Your task to perform on an android device: Empty the shopping cart on ebay.com. Add "sony triple a" to the cart on ebay.com, then select checkout. Image 0: 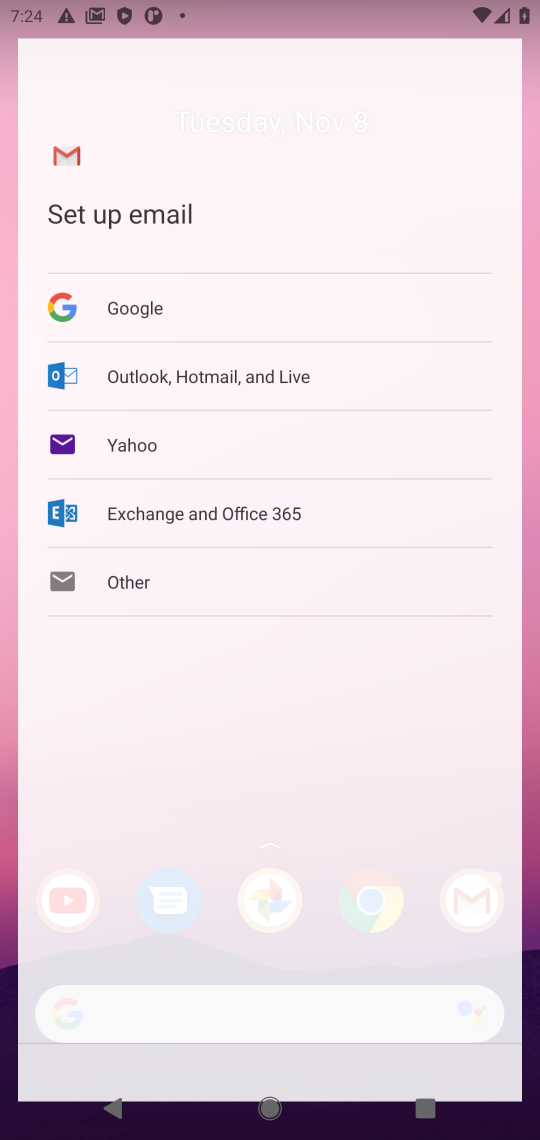
Step 0: click (360, 911)
Your task to perform on an android device: Empty the shopping cart on ebay.com. Add "sony triple a" to the cart on ebay.com, then select checkout. Image 1: 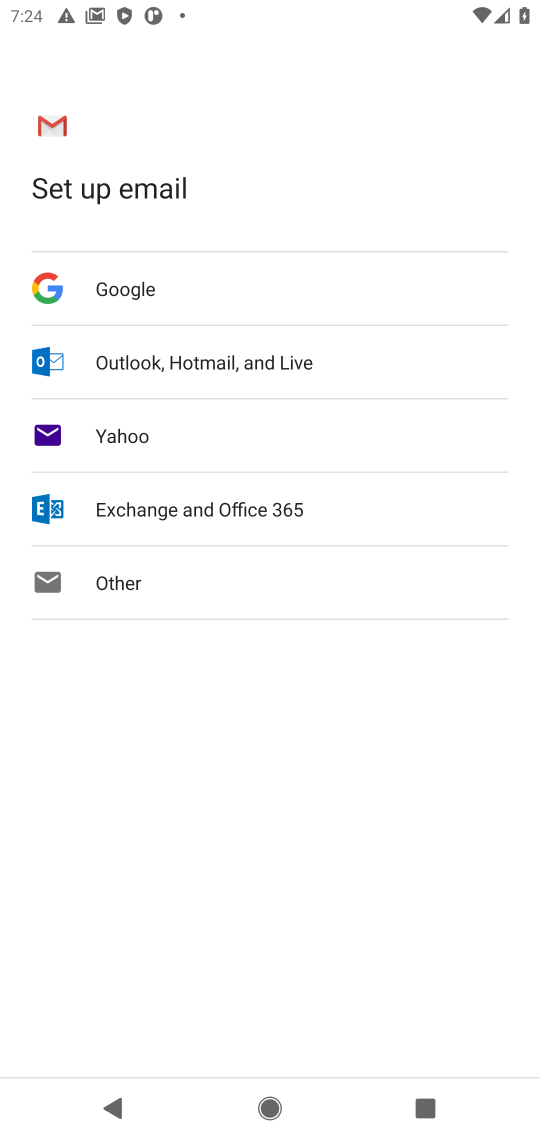
Step 1: press home button
Your task to perform on an android device: Empty the shopping cart on ebay.com. Add "sony triple a" to the cart on ebay.com, then select checkout. Image 2: 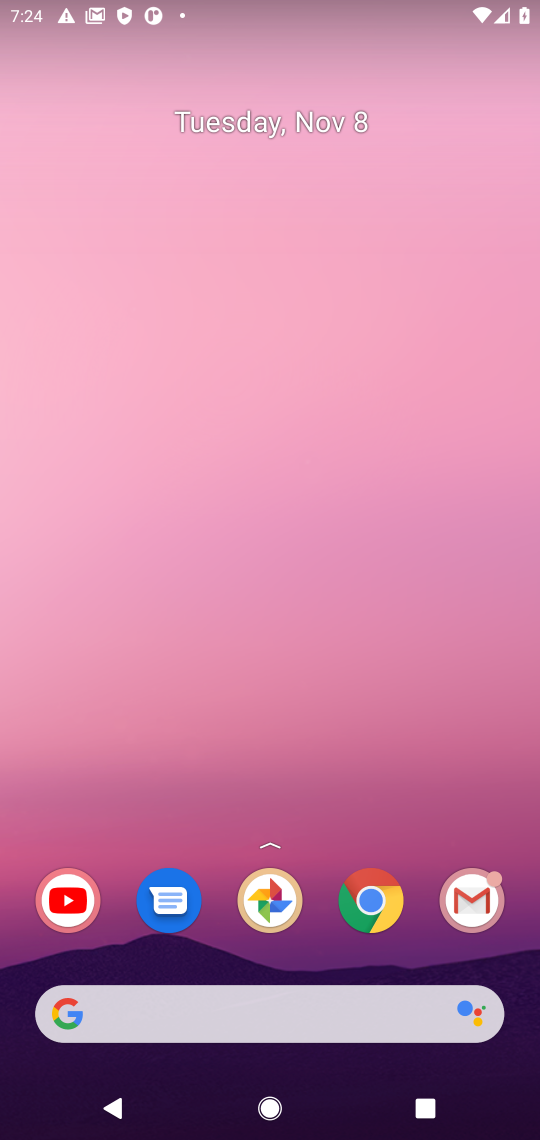
Step 2: click (358, 902)
Your task to perform on an android device: Empty the shopping cart on ebay.com. Add "sony triple a" to the cart on ebay.com, then select checkout. Image 3: 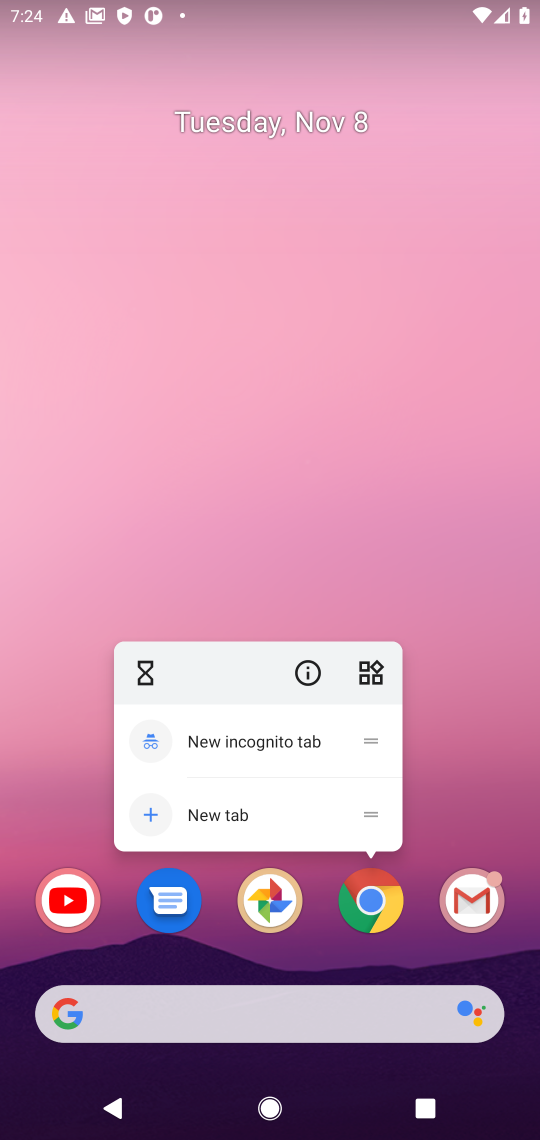
Step 3: click (356, 901)
Your task to perform on an android device: Empty the shopping cart on ebay.com. Add "sony triple a" to the cart on ebay.com, then select checkout. Image 4: 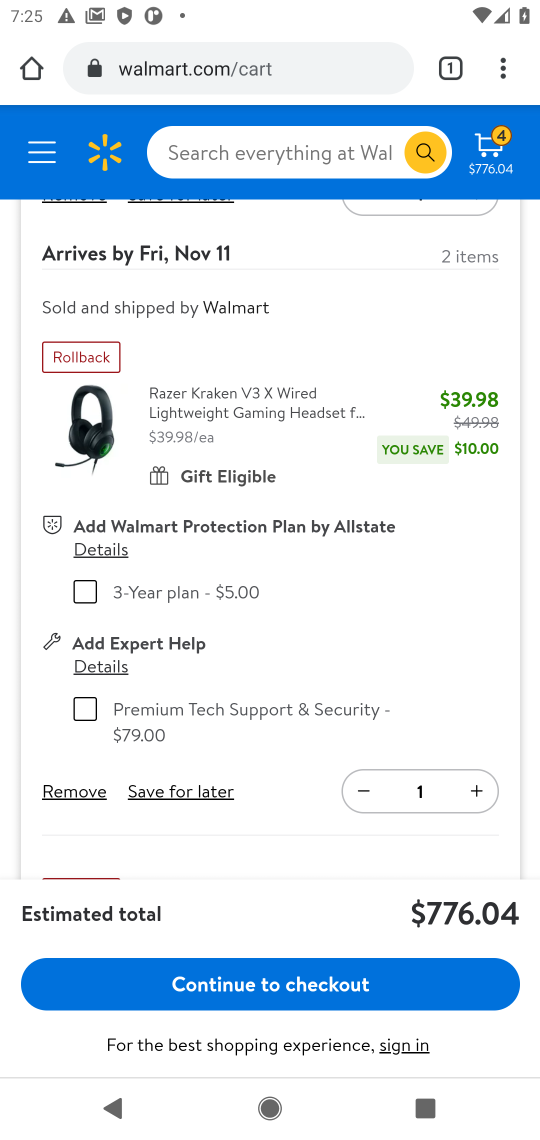
Step 4: click (202, 63)
Your task to perform on an android device: Empty the shopping cart on ebay.com. Add "sony triple a" to the cart on ebay.com, then select checkout. Image 5: 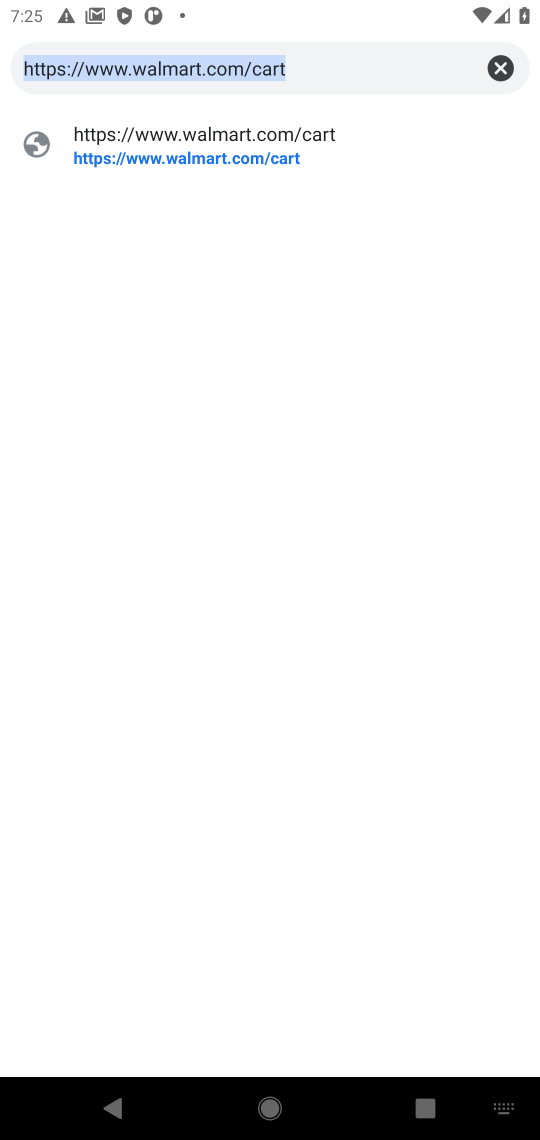
Step 5: click (502, 68)
Your task to perform on an android device: Empty the shopping cart on ebay.com. Add "sony triple a" to the cart on ebay.com, then select checkout. Image 6: 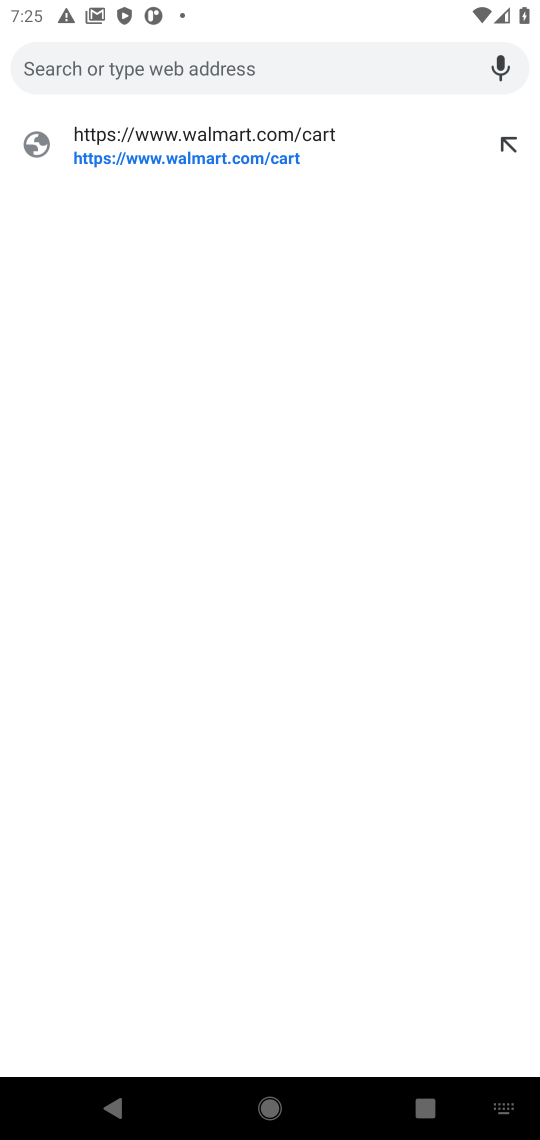
Step 6: type "ebay"
Your task to perform on an android device: Empty the shopping cart on ebay.com. Add "sony triple a" to the cart on ebay.com, then select checkout. Image 7: 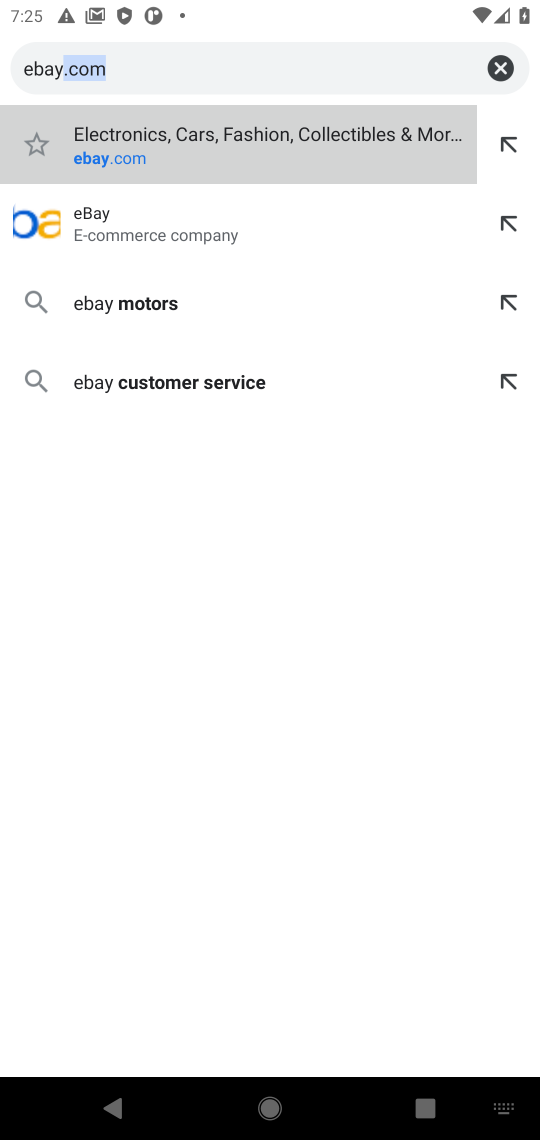
Step 7: click (96, 217)
Your task to perform on an android device: Empty the shopping cart on ebay.com. Add "sony triple a" to the cart on ebay.com, then select checkout. Image 8: 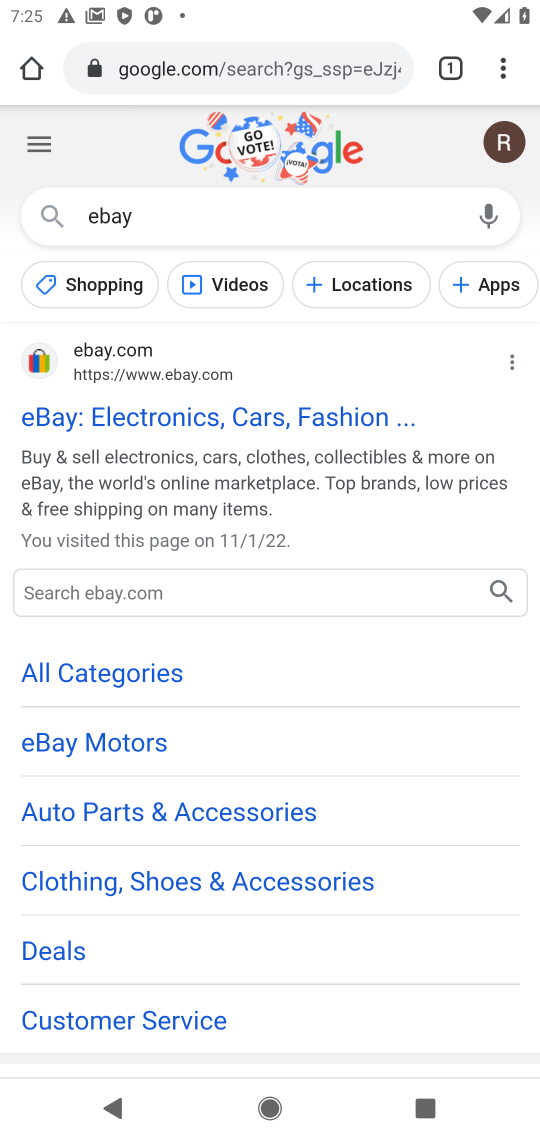
Step 8: click (139, 426)
Your task to perform on an android device: Empty the shopping cart on ebay.com. Add "sony triple a" to the cart on ebay.com, then select checkout. Image 9: 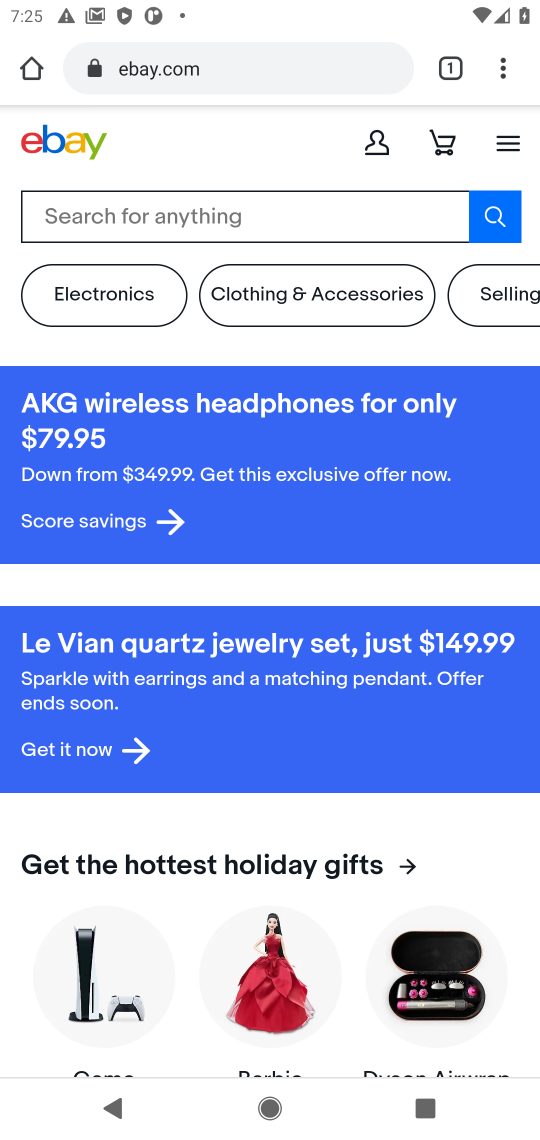
Step 9: click (237, 216)
Your task to perform on an android device: Empty the shopping cart on ebay.com. Add "sony triple a" to the cart on ebay.com, then select checkout. Image 10: 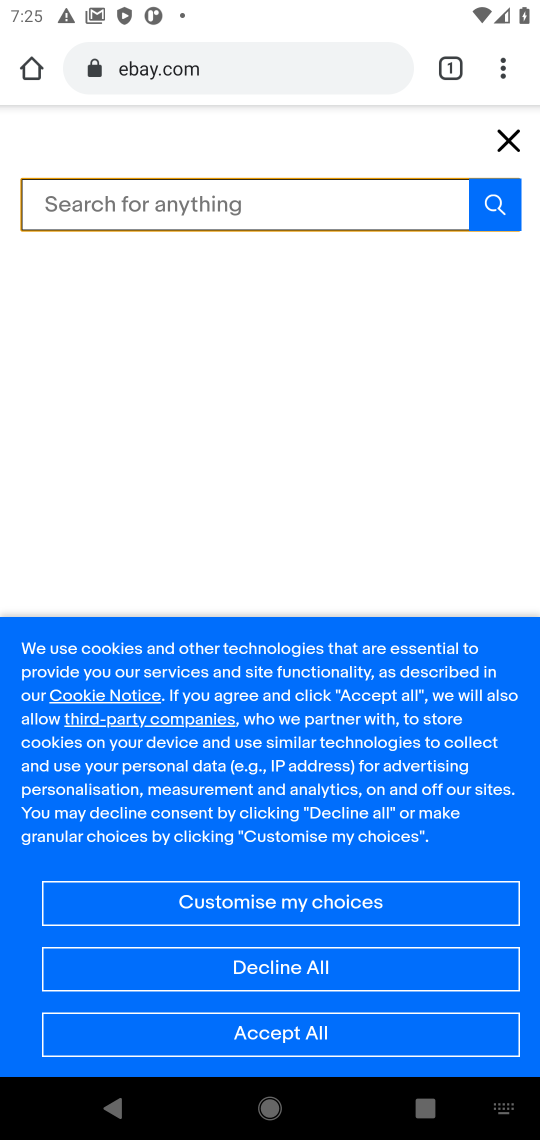
Step 10: type "sony triple"
Your task to perform on an android device: Empty the shopping cart on ebay.com. Add "sony triple a" to the cart on ebay.com, then select checkout. Image 11: 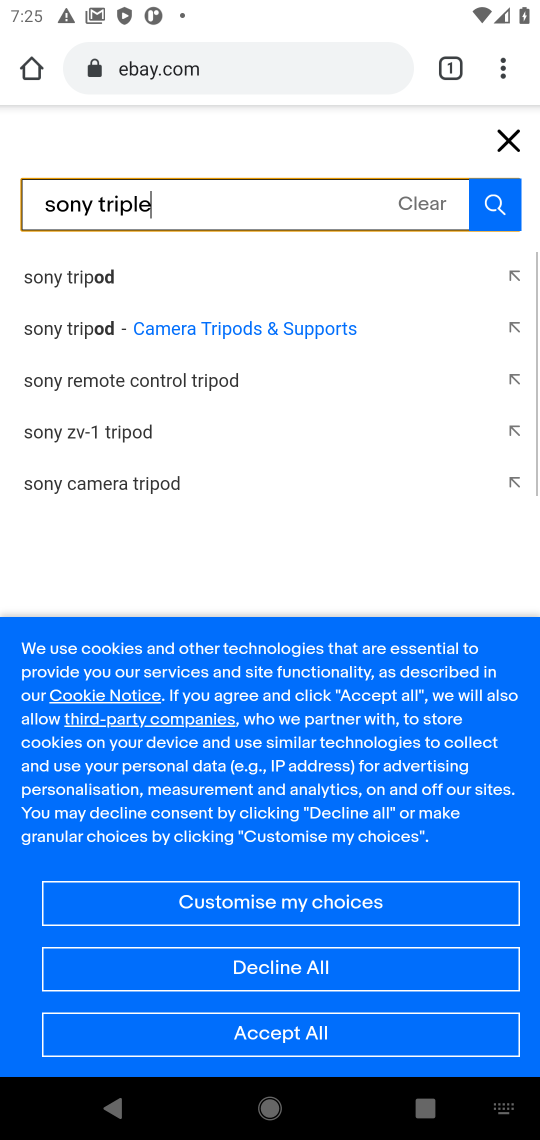
Step 11: type ""
Your task to perform on an android device: Empty the shopping cart on ebay.com. Add "sony triple a" to the cart on ebay.com, then select checkout. Image 12: 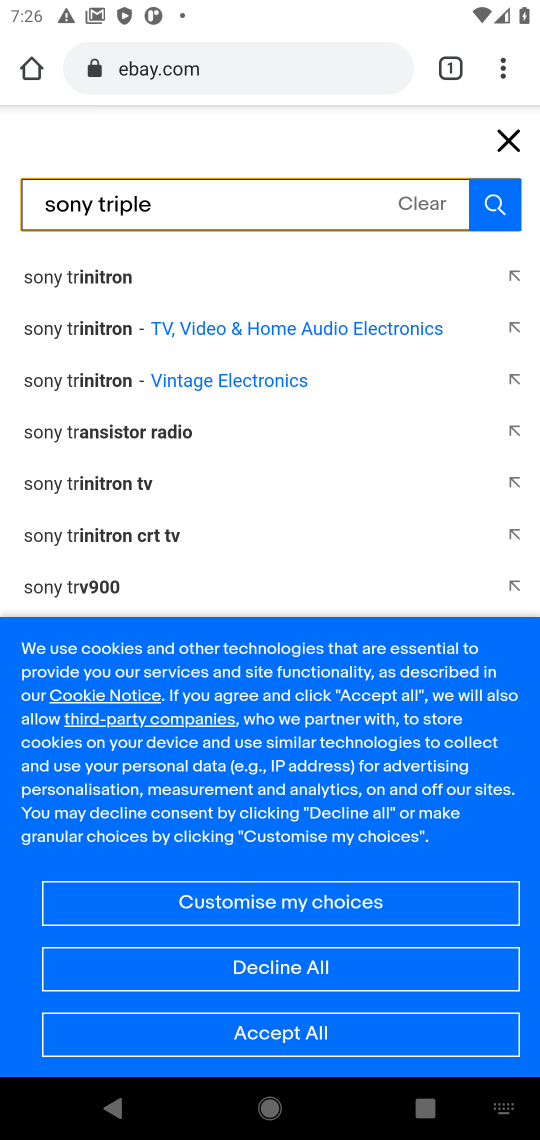
Step 12: click (58, 275)
Your task to perform on an android device: Empty the shopping cart on ebay.com. Add "sony triple a" to the cart on ebay.com, then select checkout. Image 13: 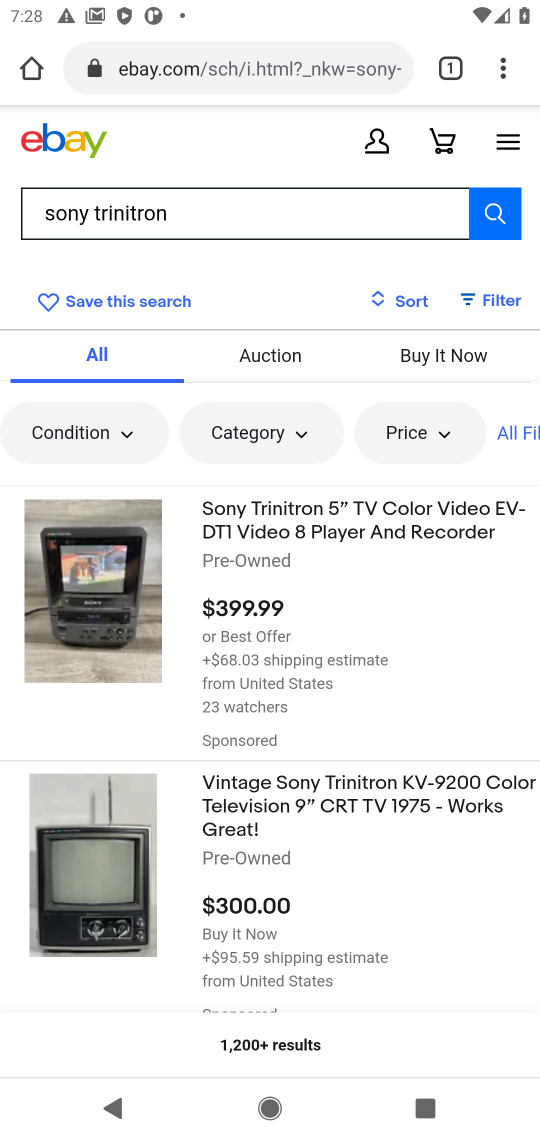
Step 13: click (243, 526)
Your task to perform on an android device: Empty the shopping cart on ebay.com. Add "sony triple a" to the cart on ebay.com, then select checkout. Image 14: 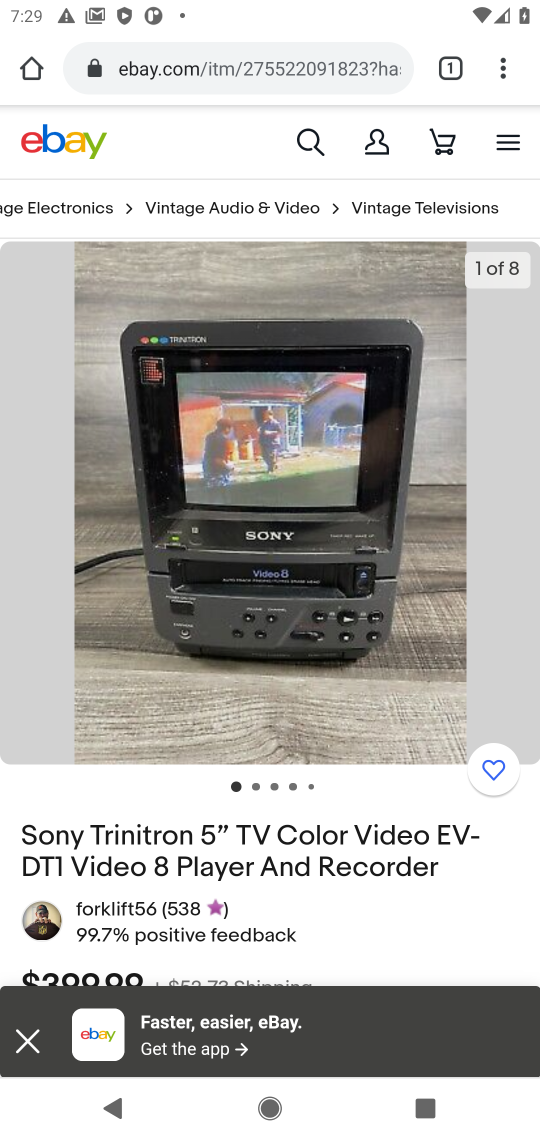
Step 14: click (28, 1038)
Your task to perform on an android device: Empty the shopping cart on ebay.com. Add "sony triple a" to the cart on ebay.com, then select checkout. Image 15: 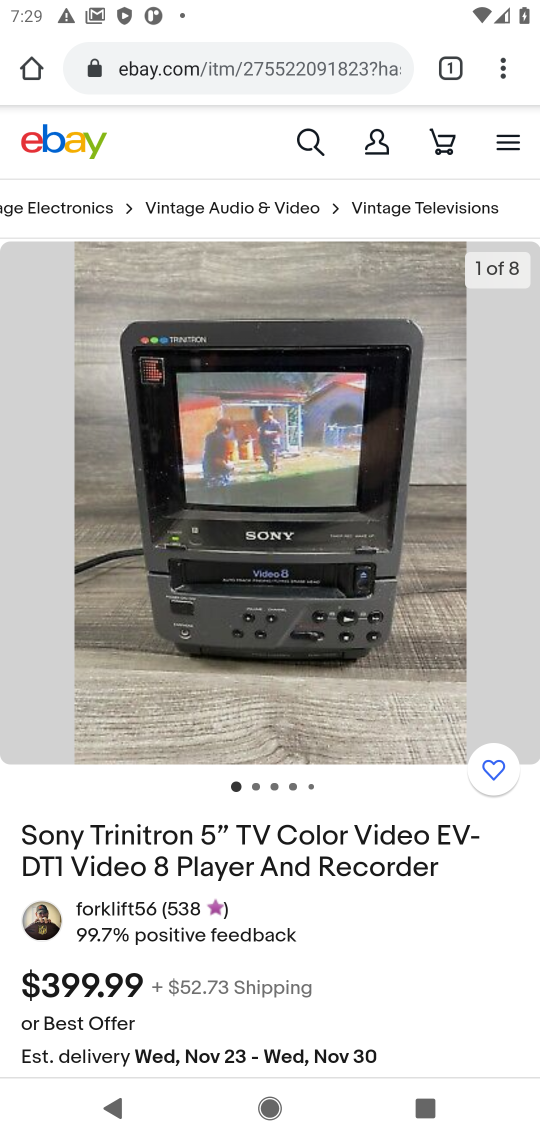
Step 15: drag from (285, 825) to (412, 335)
Your task to perform on an android device: Empty the shopping cart on ebay.com. Add "sony triple a" to the cart on ebay.com, then select checkout. Image 16: 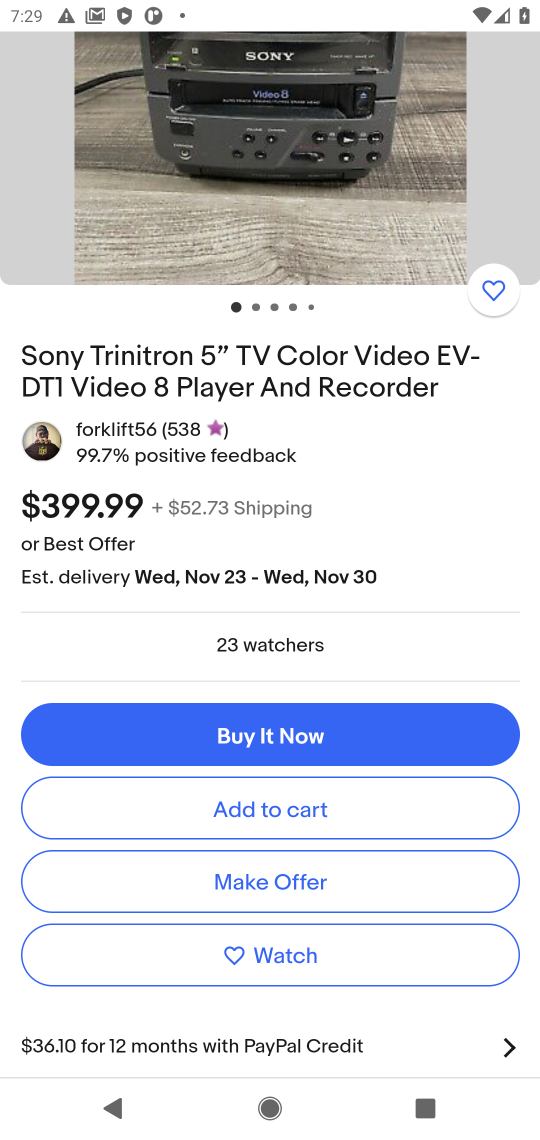
Step 16: click (279, 821)
Your task to perform on an android device: Empty the shopping cart on ebay.com. Add "sony triple a" to the cart on ebay.com, then select checkout. Image 17: 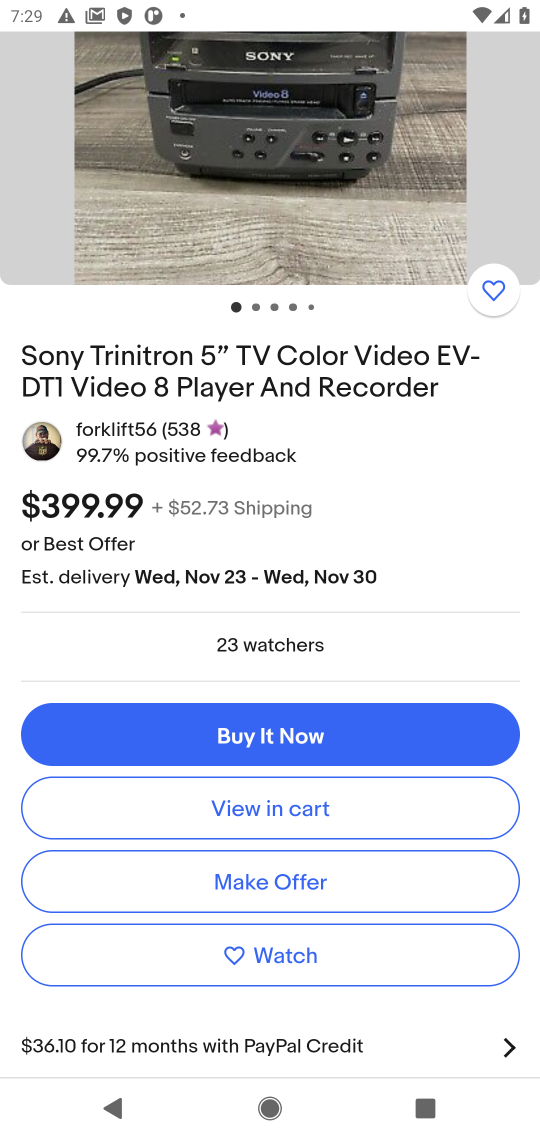
Step 17: click (218, 811)
Your task to perform on an android device: Empty the shopping cart on ebay.com. Add "sony triple a" to the cart on ebay.com, then select checkout. Image 18: 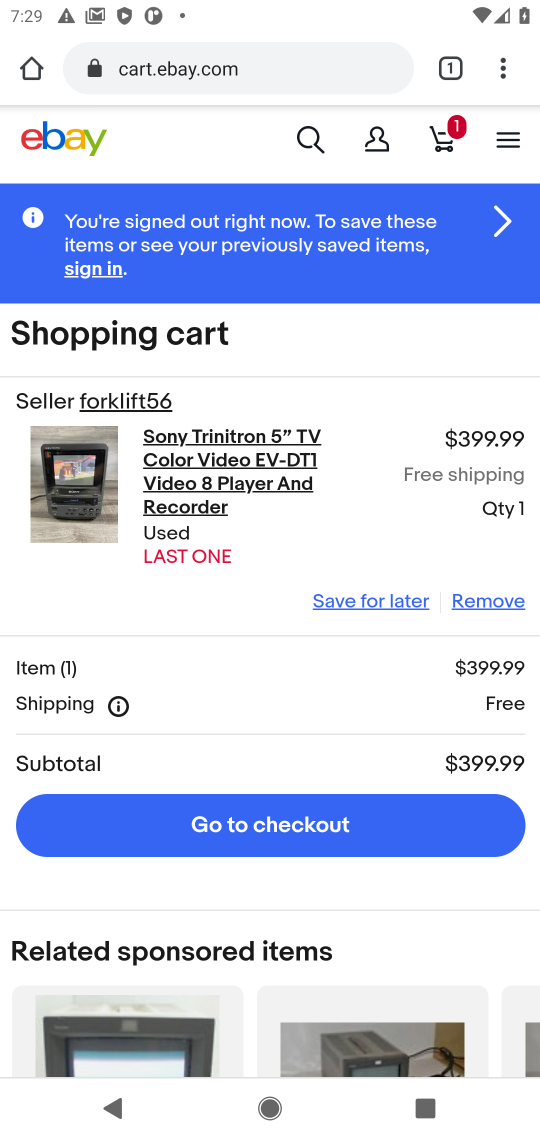
Step 18: click (243, 841)
Your task to perform on an android device: Empty the shopping cart on ebay.com. Add "sony triple a" to the cart on ebay.com, then select checkout. Image 19: 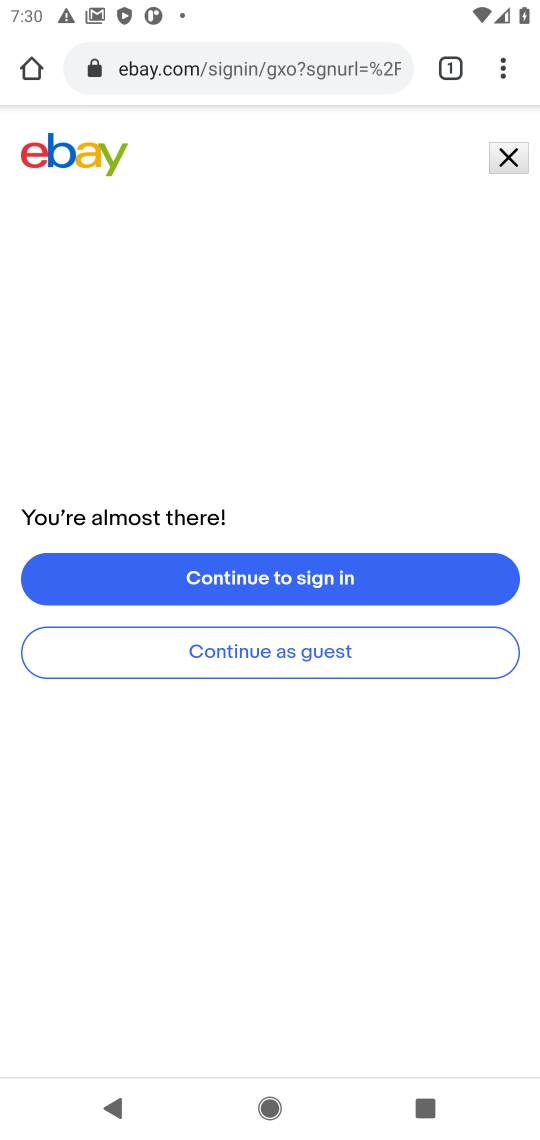
Step 19: task complete